Your task to perform on an android device: Go to accessibility settings Image 0: 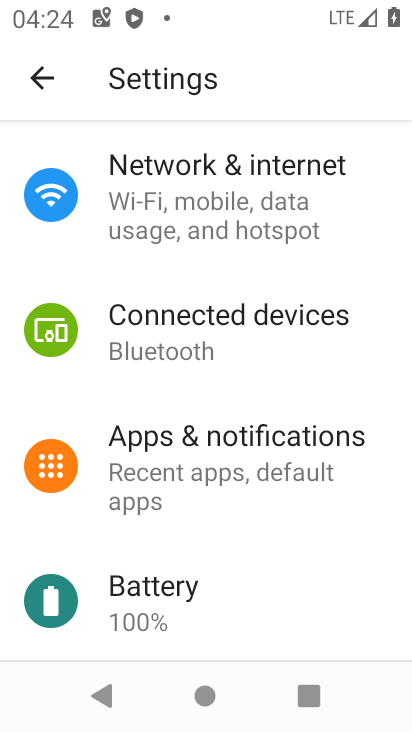
Step 0: click (179, 161)
Your task to perform on an android device: Go to accessibility settings Image 1: 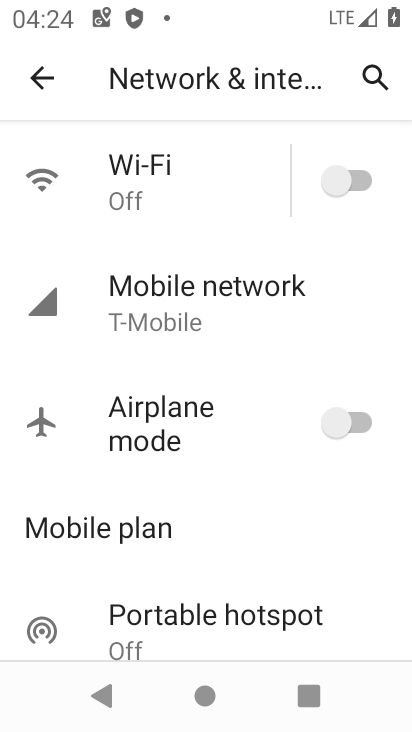
Step 1: click (40, 79)
Your task to perform on an android device: Go to accessibility settings Image 2: 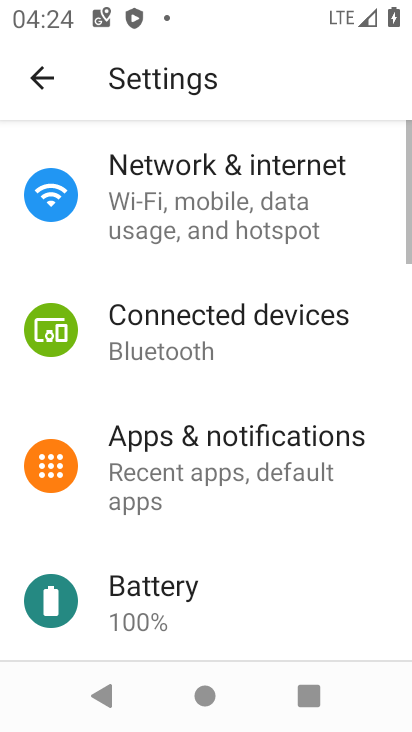
Step 2: drag from (164, 632) to (186, 277)
Your task to perform on an android device: Go to accessibility settings Image 3: 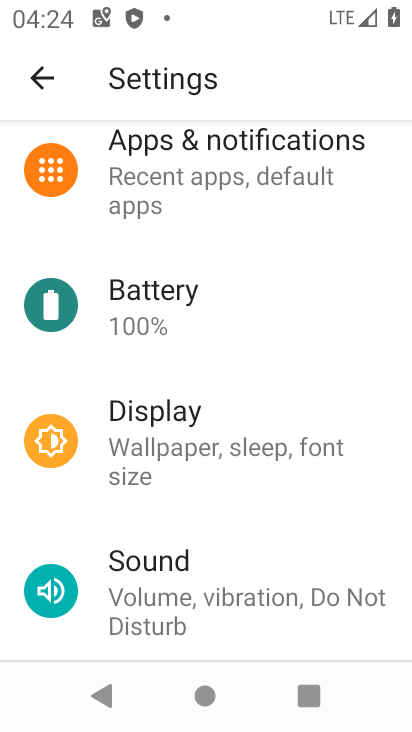
Step 3: drag from (201, 620) to (204, 351)
Your task to perform on an android device: Go to accessibility settings Image 4: 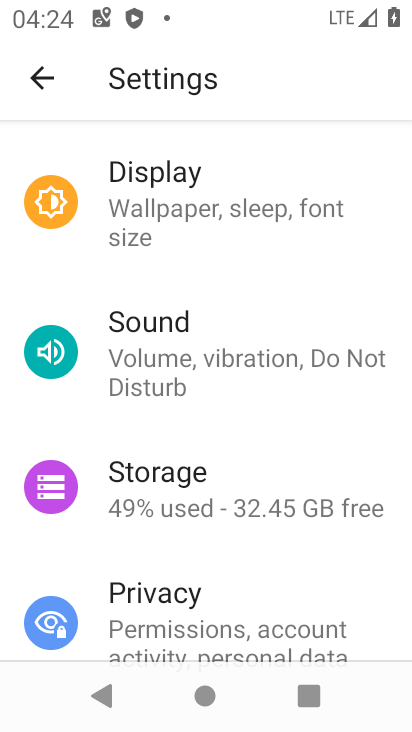
Step 4: drag from (182, 615) to (185, 325)
Your task to perform on an android device: Go to accessibility settings Image 5: 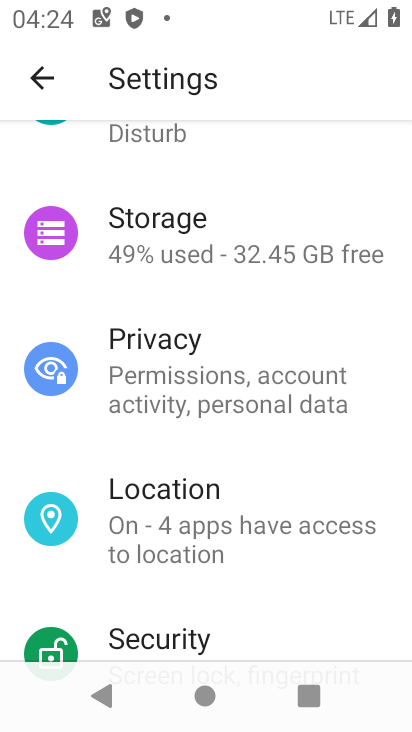
Step 5: drag from (207, 633) to (183, 269)
Your task to perform on an android device: Go to accessibility settings Image 6: 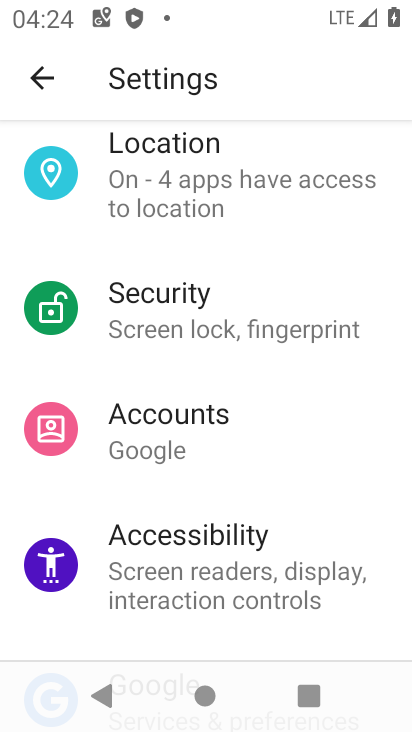
Step 6: click (186, 549)
Your task to perform on an android device: Go to accessibility settings Image 7: 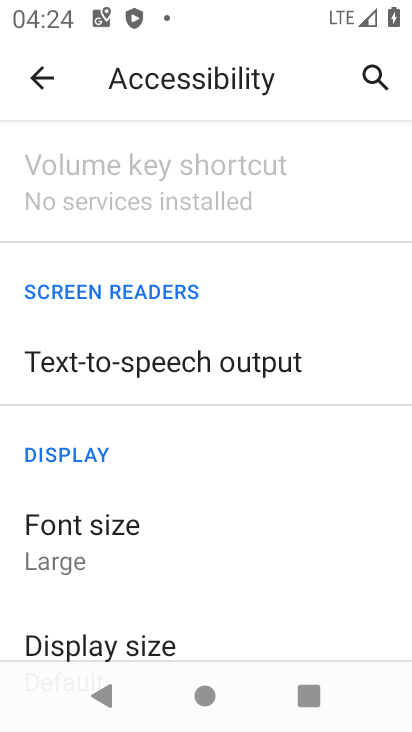
Step 7: task complete